Your task to perform on an android device: Search for vegetarian restaurants on Maps Image 0: 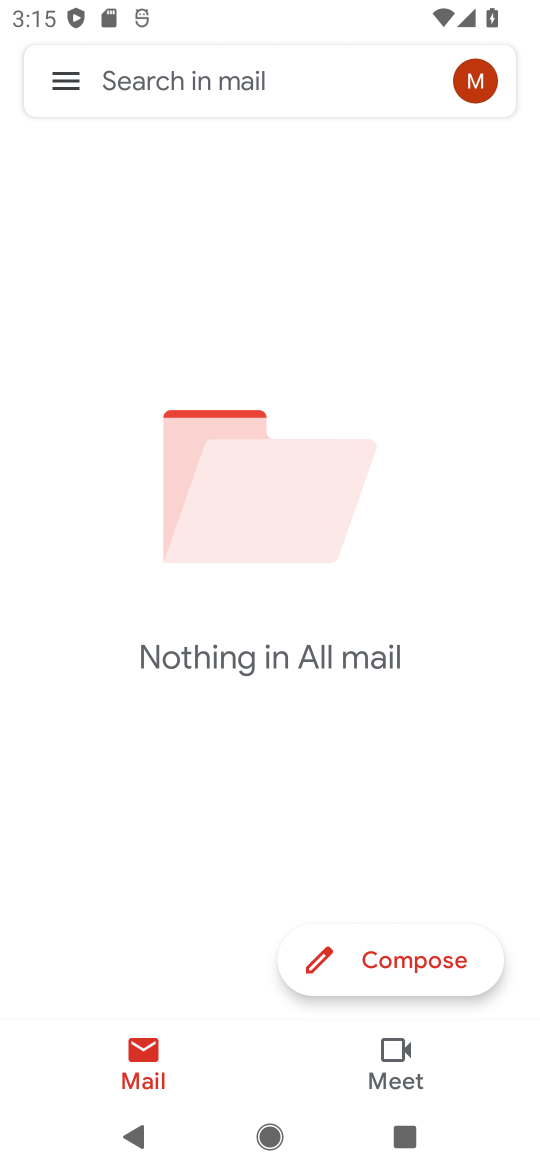
Step 0: press home button
Your task to perform on an android device: Search for vegetarian restaurants on Maps Image 1: 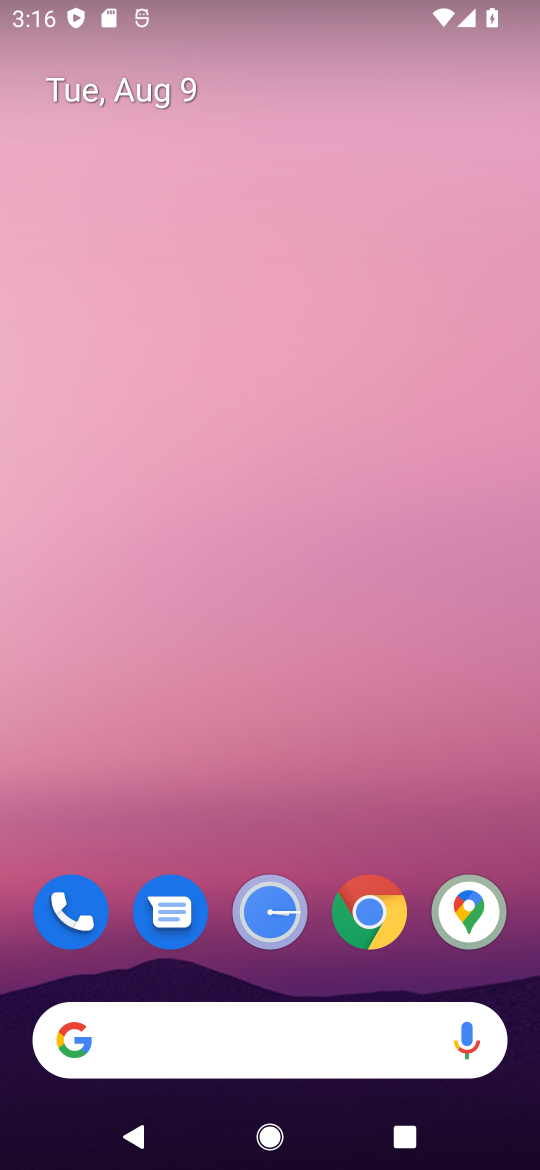
Step 1: drag from (237, 716) to (218, 180)
Your task to perform on an android device: Search for vegetarian restaurants on Maps Image 2: 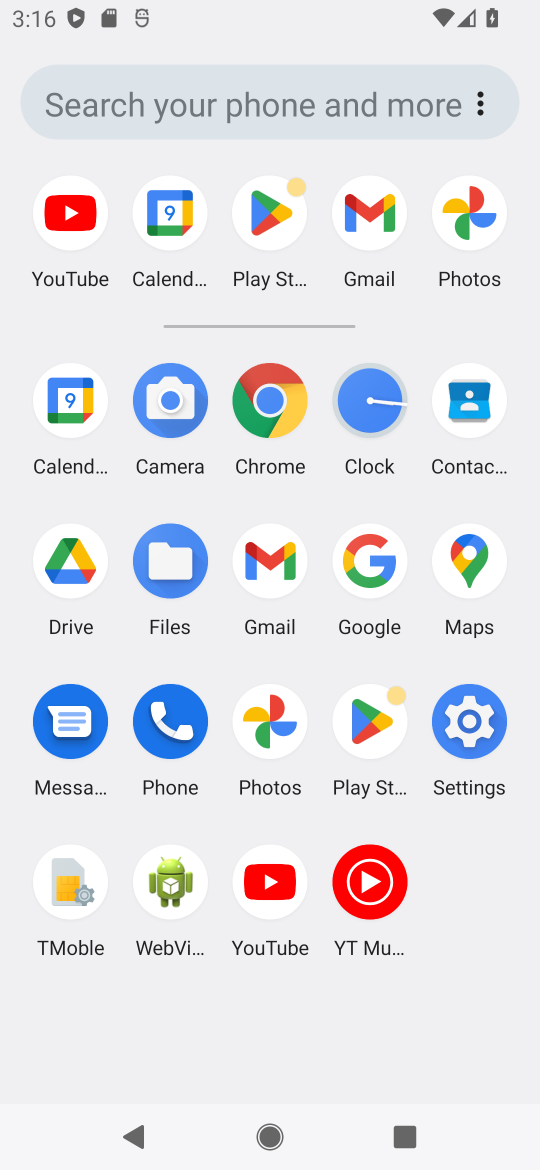
Step 2: click (473, 557)
Your task to perform on an android device: Search for vegetarian restaurants on Maps Image 3: 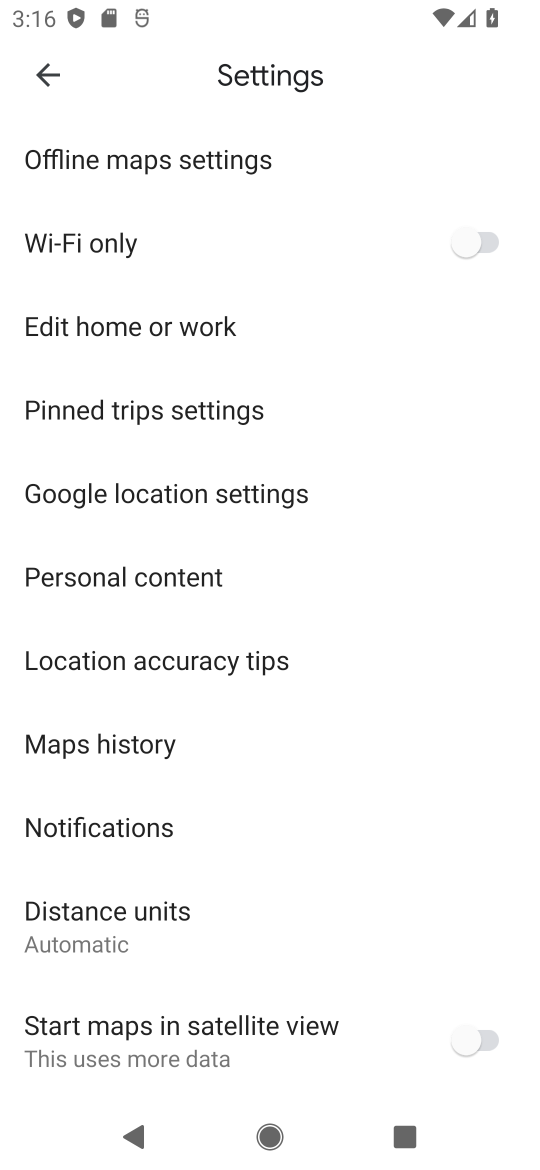
Step 3: click (37, 79)
Your task to perform on an android device: Search for vegetarian restaurants on Maps Image 4: 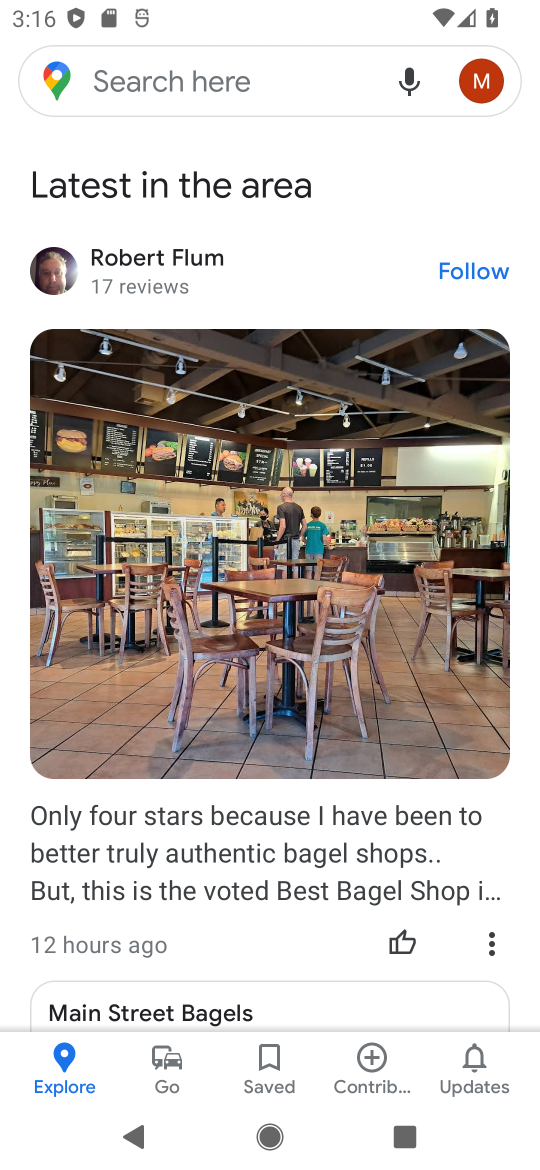
Step 4: click (177, 85)
Your task to perform on an android device: Search for vegetarian restaurants on Maps Image 5: 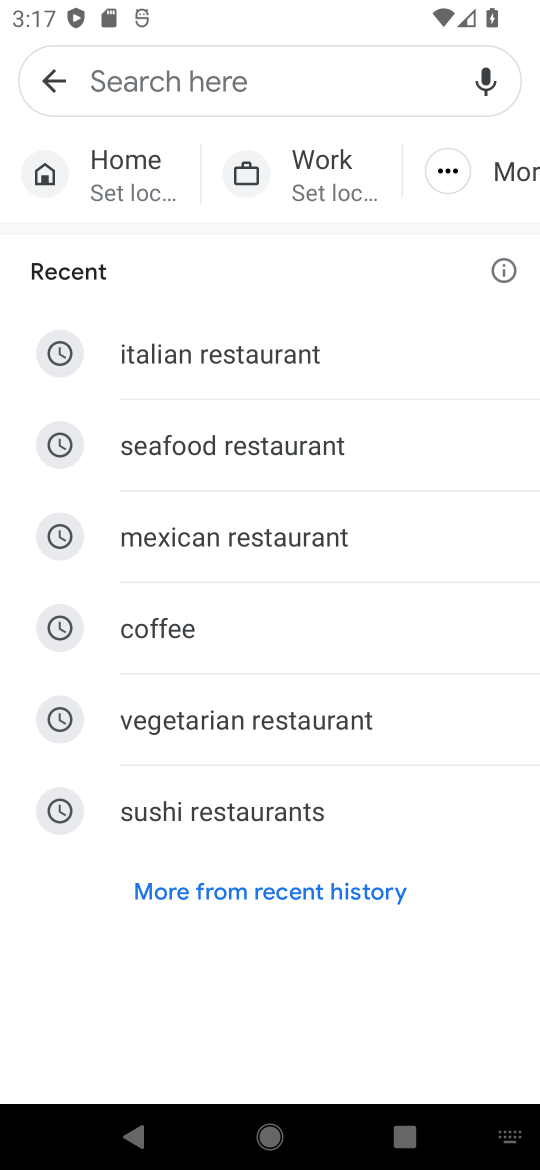
Step 5: click (261, 716)
Your task to perform on an android device: Search for vegetarian restaurants on Maps Image 6: 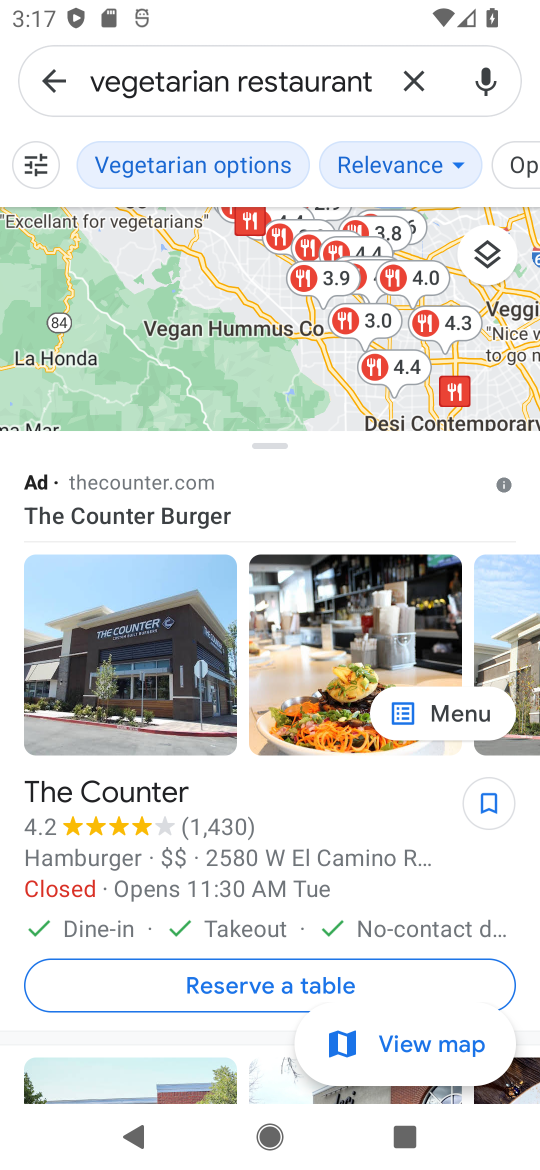
Step 6: task complete